Your task to perform on an android device: clear all cookies in the chrome app Image 0: 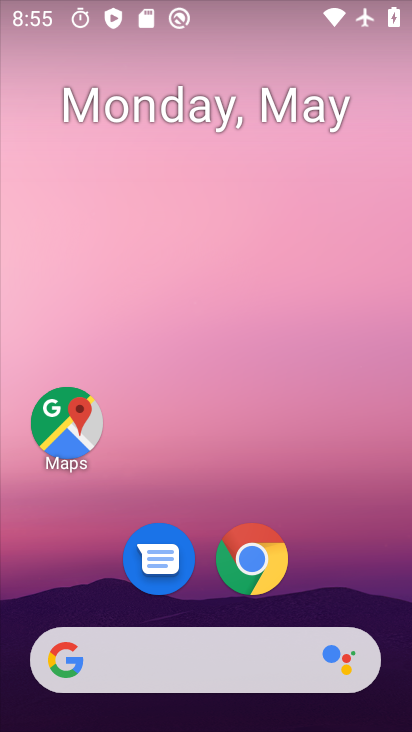
Step 0: click (251, 554)
Your task to perform on an android device: clear all cookies in the chrome app Image 1: 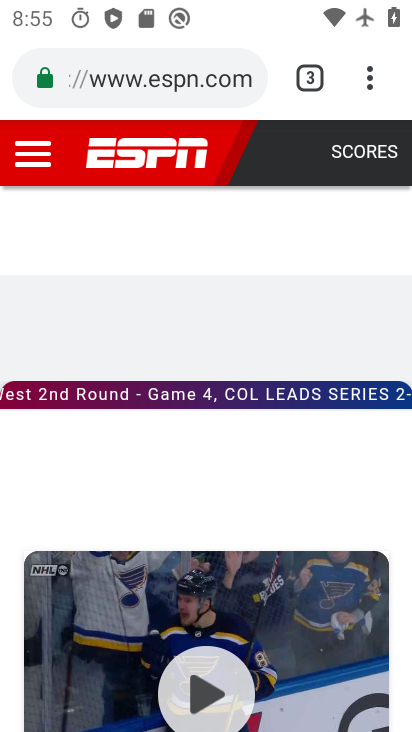
Step 1: click (371, 81)
Your task to perform on an android device: clear all cookies in the chrome app Image 2: 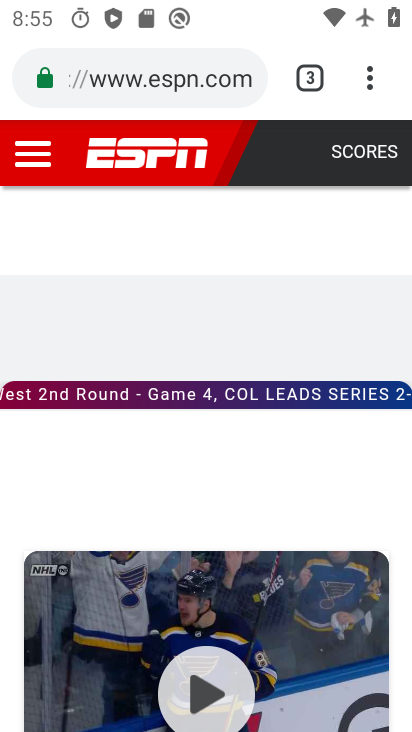
Step 2: click (359, 79)
Your task to perform on an android device: clear all cookies in the chrome app Image 3: 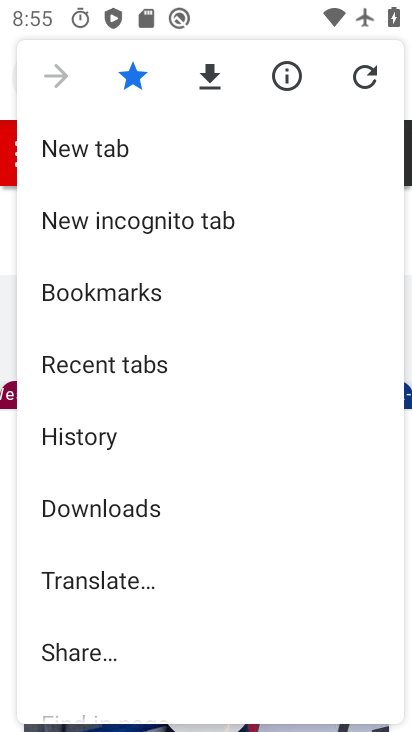
Step 3: click (77, 428)
Your task to perform on an android device: clear all cookies in the chrome app Image 4: 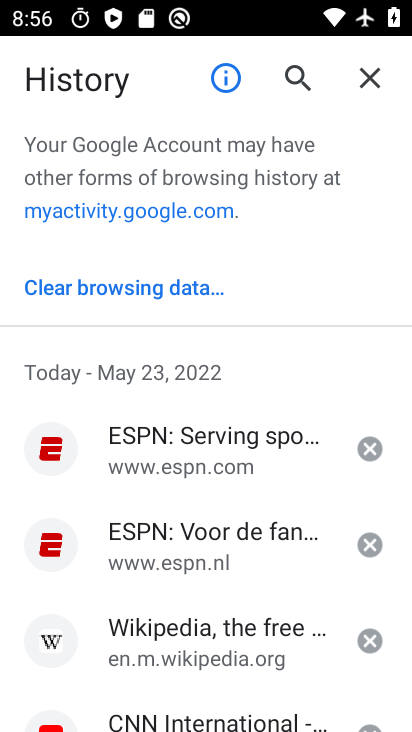
Step 4: click (67, 284)
Your task to perform on an android device: clear all cookies in the chrome app Image 5: 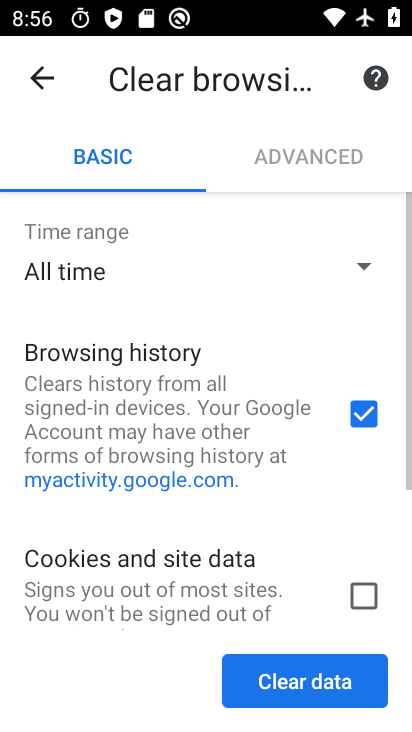
Step 5: click (349, 601)
Your task to perform on an android device: clear all cookies in the chrome app Image 6: 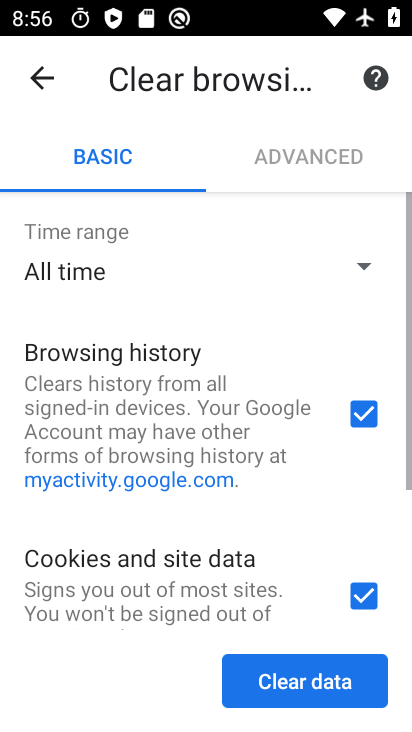
Step 6: click (325, 452)
Your task to perform on an android device: clear all cookies in the chrome app Image 7: 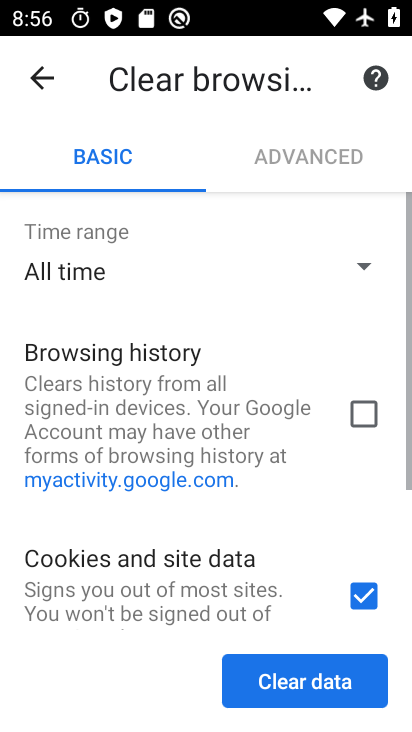
Step 7: drag from (294, 599) to (298, 166)
Your task to perform on an android device: clear all cookies in the chrome app Image 8: 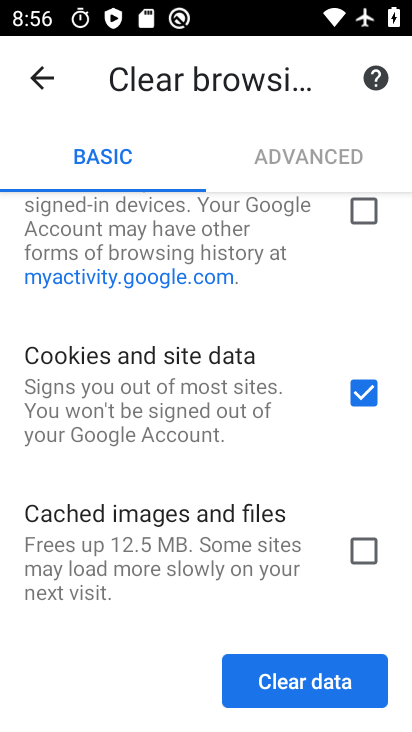
Step 8: click (335, 677)
Your task to perform on an android device: clear all cookies in the chrome app Image 9: 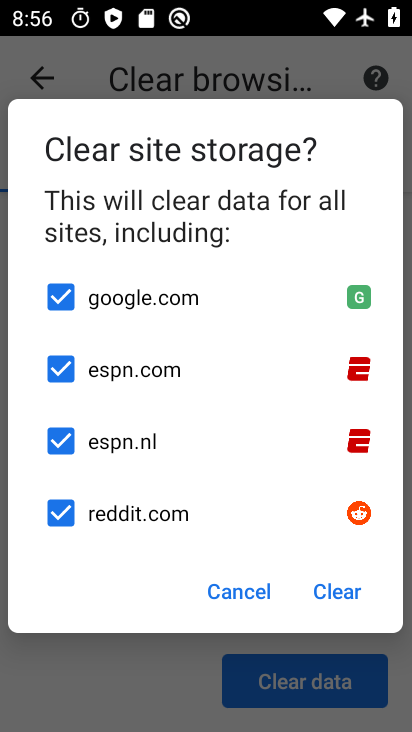
Step 9: click (326, 583)
Your task to perform on an android device: clear all cookies in the chrome app Image 10: 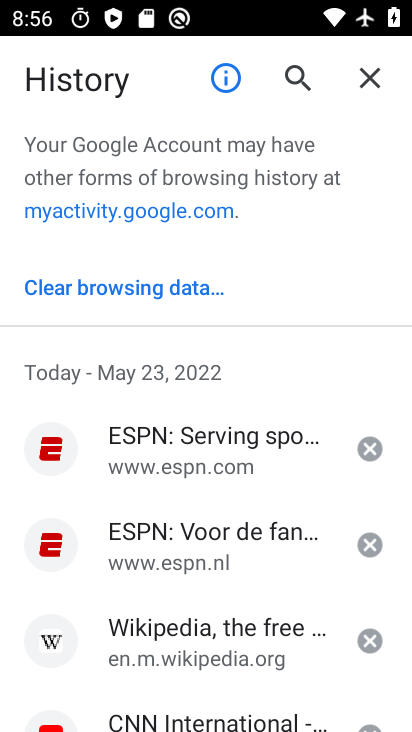
Step 10: task complete